Your task to perform on an android device: Open CNN.com Image 0: 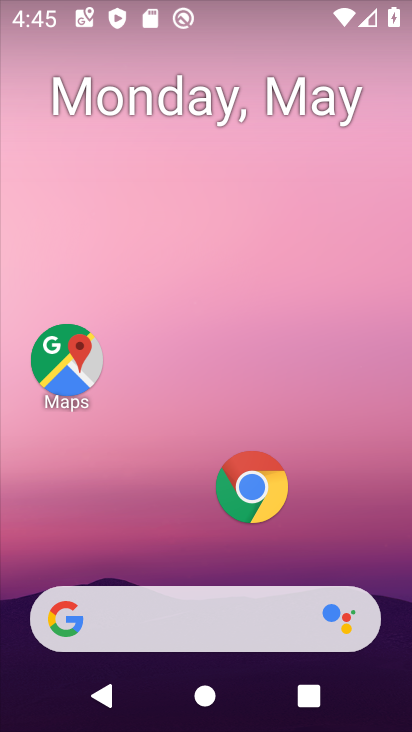
Step 0: click (241, 491)
Your task to perform on an android device: Open CNN.com Image 1: 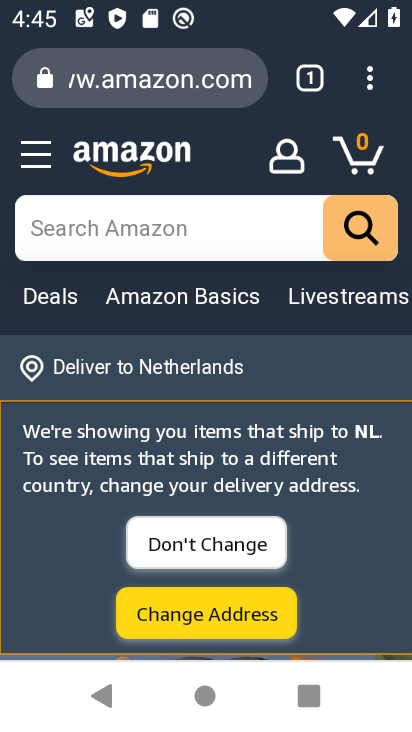
Step 1: click (319, 70)
Your task to perform on an android device: Open CNN.com Image 2: 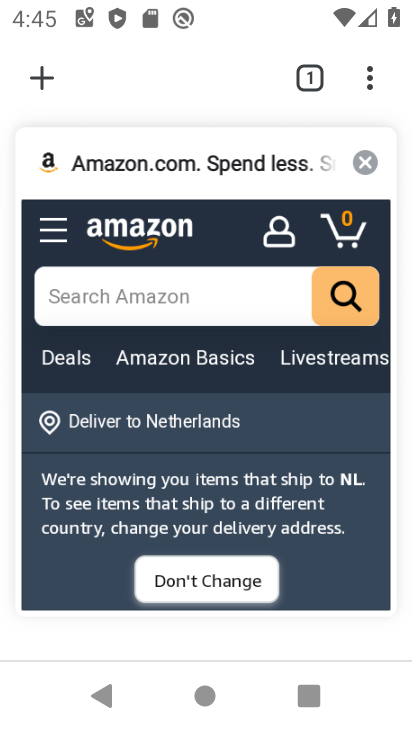
Step 2: click (364, 167)
Your task to perform on an android device: Open CNN.com Image 3: 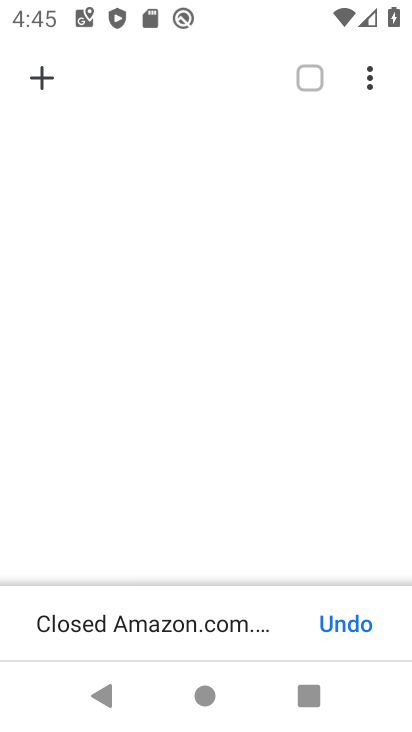
Step 3: click (35, 82)
Your task to perform on an android device: Open CNN.com Image 4: 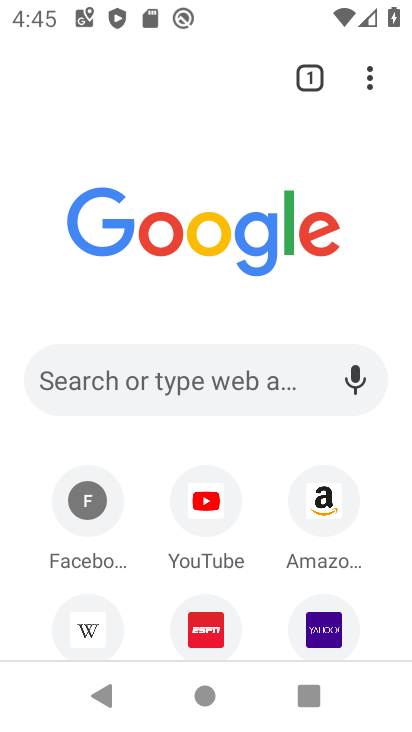
Step 4: click (122, 376)
Your task to perform on an android device: Open CNN.com Image 5: 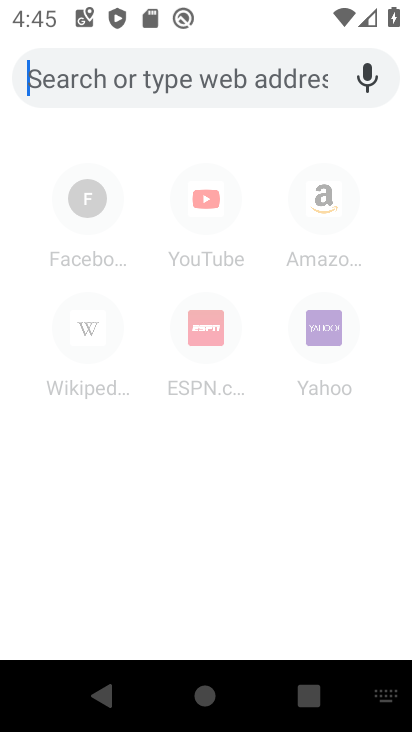
Step 5: type "cnn.com"
Your task to perform on an android device: Open CNN.com Image 6: 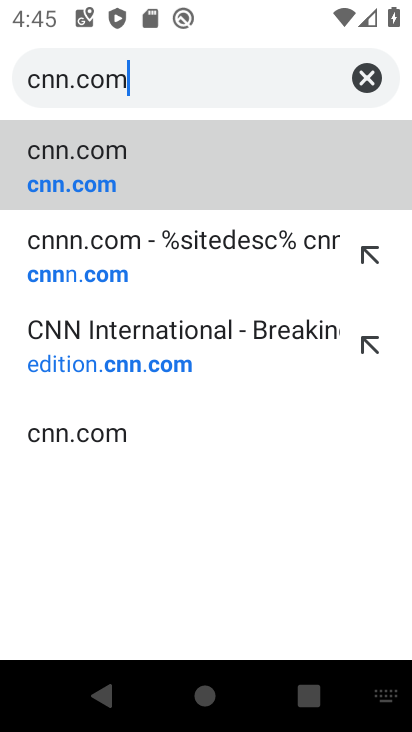
Step 6: click (138, 184)
Your task to perform on an android device: Open CNN.com Image 7: 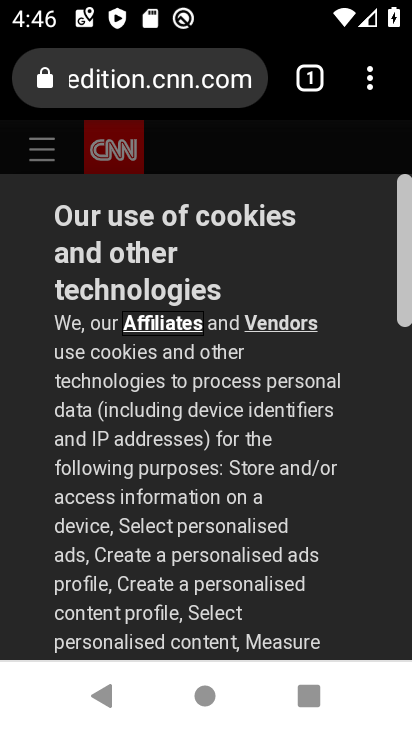
Step 7: task complete